Your task to perform on an android device: turn off airplane mode Image 0: 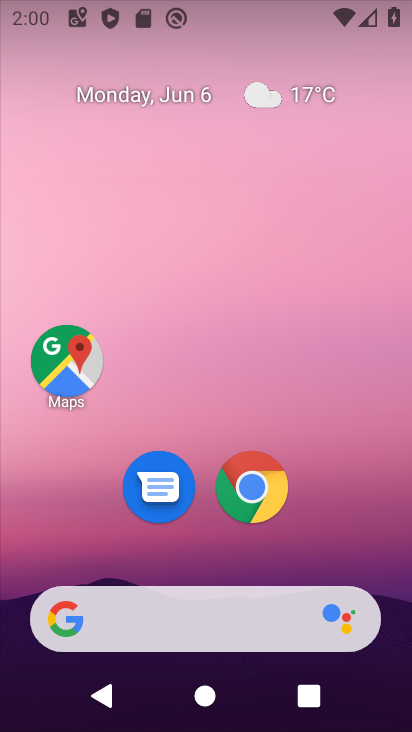
Step 0: drag from (85, 588) to (184, 98)
Your task to perform on an android device: turn off airplane mode Image 1: 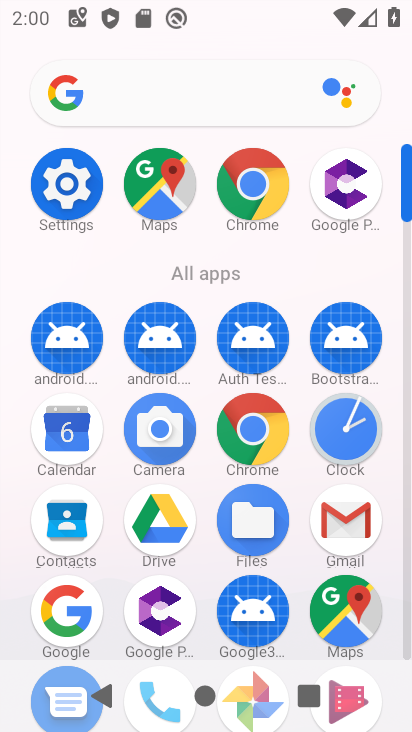
Step 1: drag from (150, 577) to (258, 265)
Your task to perform on an android device: turn off airplane mode Image 2: 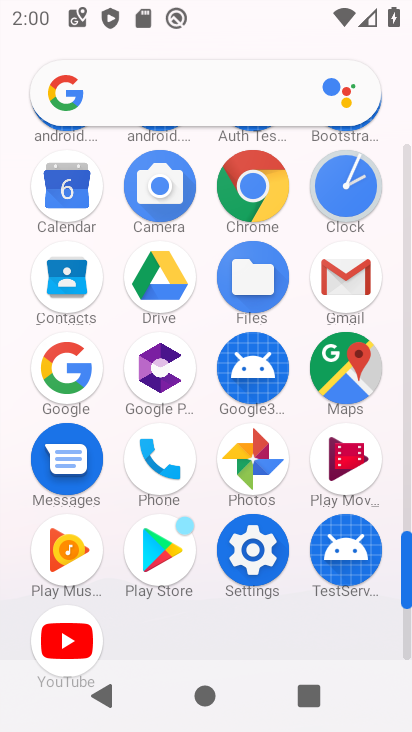
Step 2: click (240, 567)
Your task to perform on an android device: turn off airplane mode Image 3: 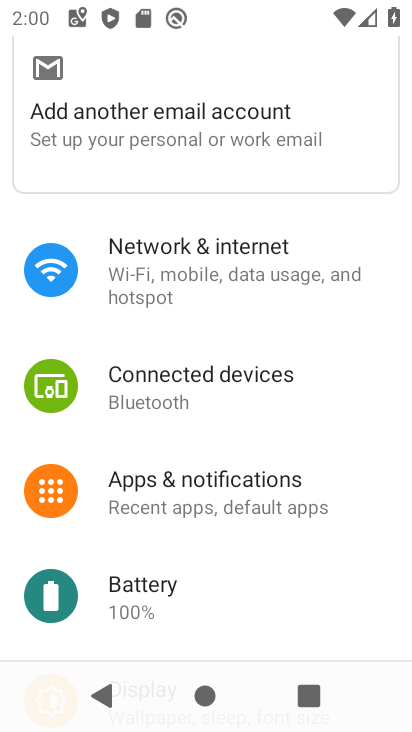
Step 3: click (224, 291)
Your task to perform on an android device: turn off airplane mode Image 4: 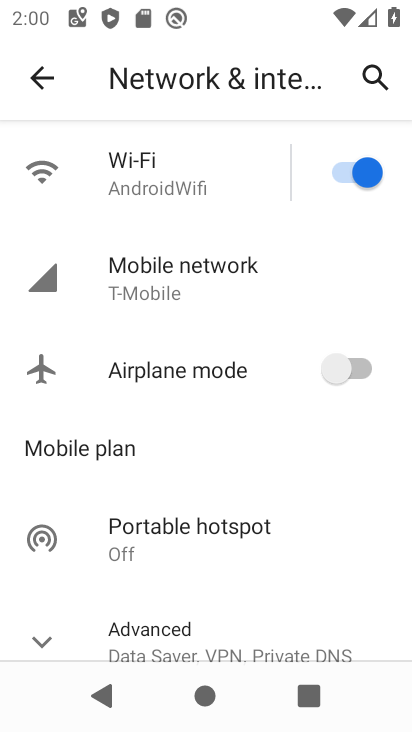
Step 4: task complete